Your task to perform on an android device: What's on my calendar tomorrow? Image 0: 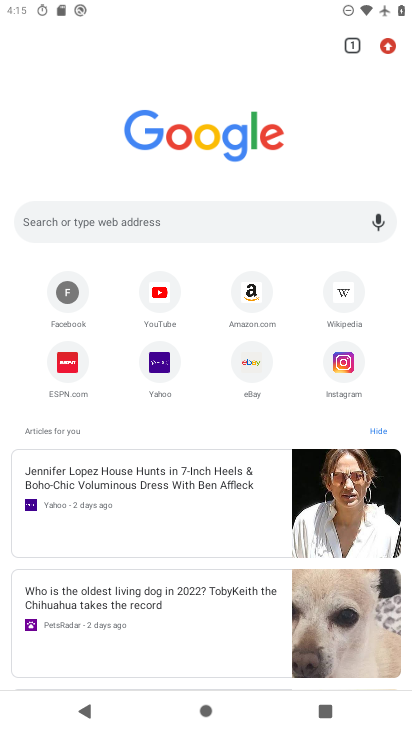
Step 0: press home button
Your task to perform on an android device: What's on my calendar tomorrow? Image 1: 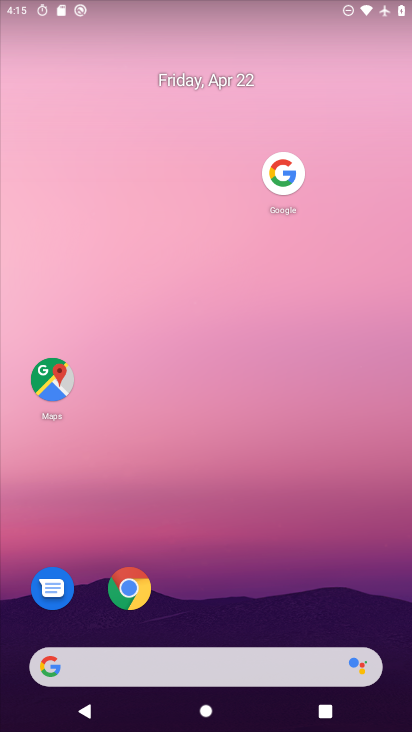
Step 1: drag from (215, 644) to (186, 45)
Your task to perform on an android device: What's on my calendar tomorrow? Image 2: 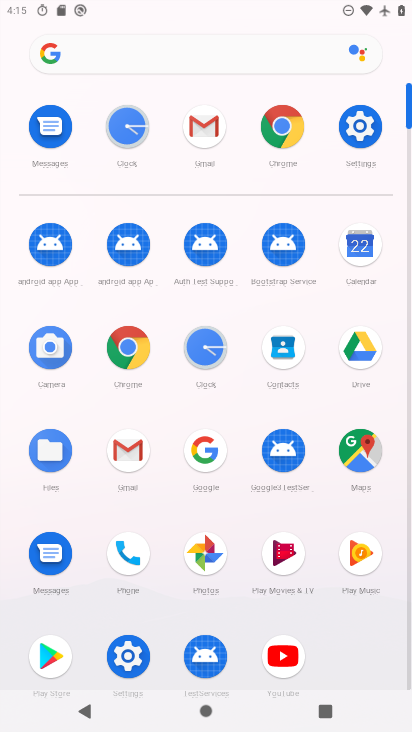
Step 2: click (349, 254)
Your task to perform on an android device: What's on my calendar tomorrow? Image 3: 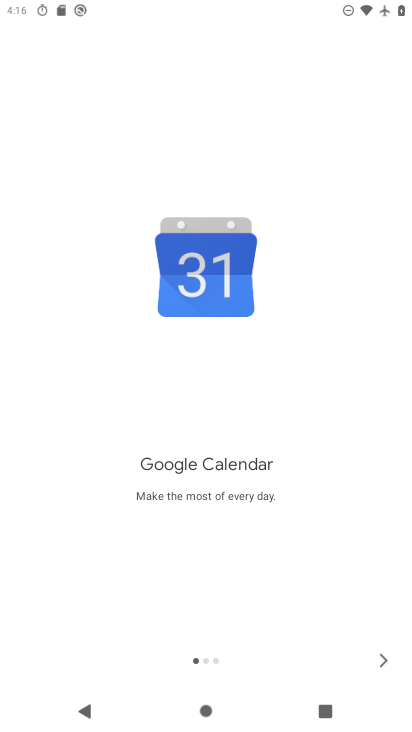
Step 3: click (383, 646)
Your task to perform on an android device: What's on my calendar tomorrow? Image 4: 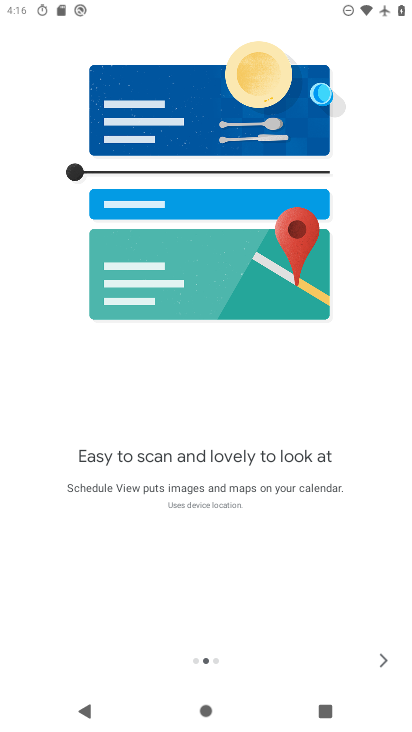
Step 4: click (374, 657)
Your task to perform on an android device: What's on my calendar tomorrow? Image 5: 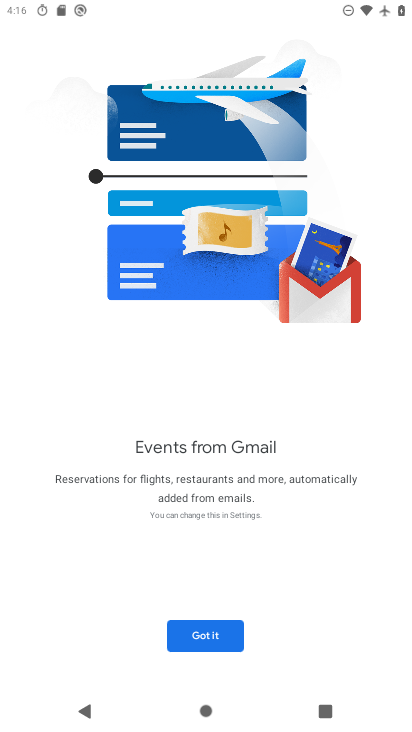
Step 5: click (217, 637)
Your task to perform on an android device: What's on my calendar tomorrow? Image 6: 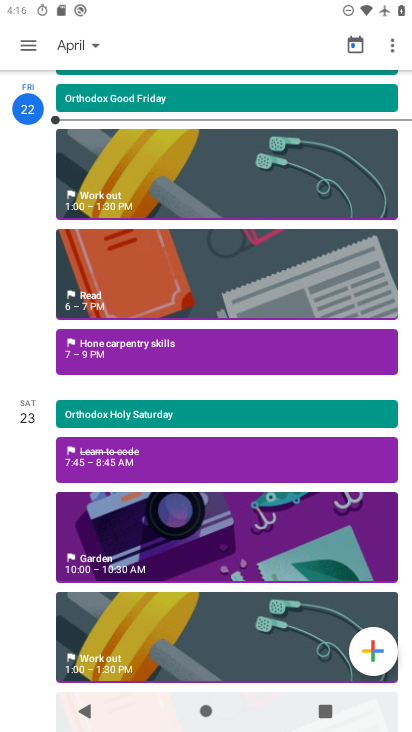
Step 6: press home button
Your task to perform on an android device: What's on my calendar tomorrow? Image 7: 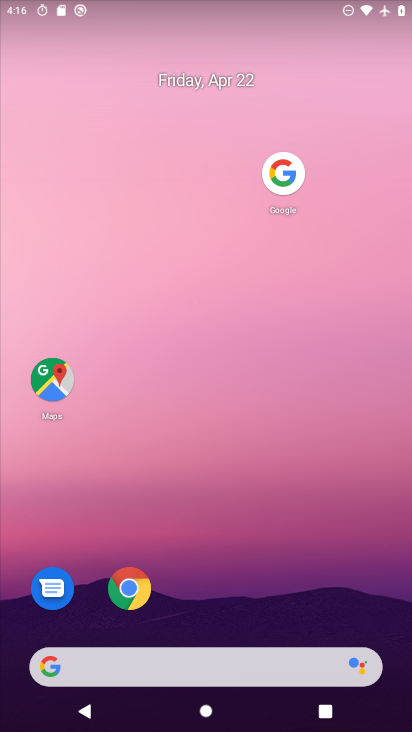
Step 7: drag from (200, 636) to (187, 13)
Your task to perform on an android device: What's on my calendar tomorrow? Image 8: 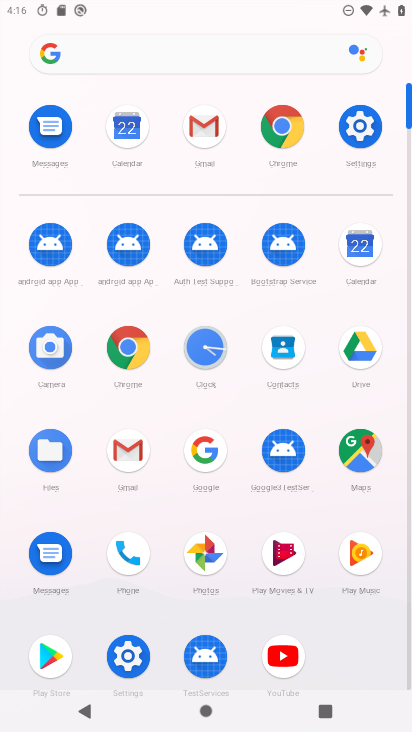
Step 8: click (358, 236)
Your task to perform on an android device: What's on my calendar tomorrow? Image 9: 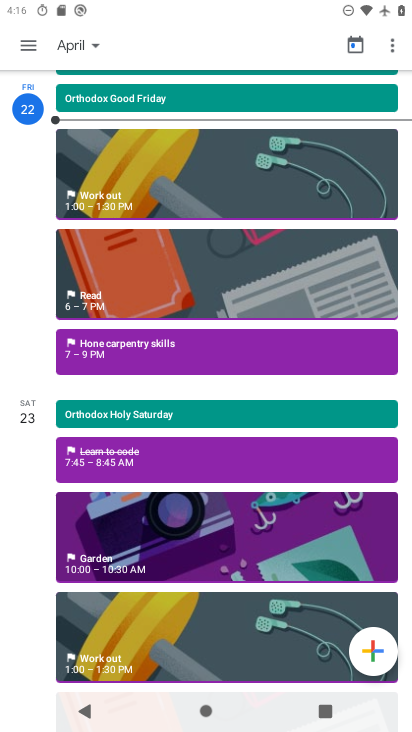
Step 9: click (35, 421)
Your task to perform on an android device: What's on my calendar tomorrow? Image 10: 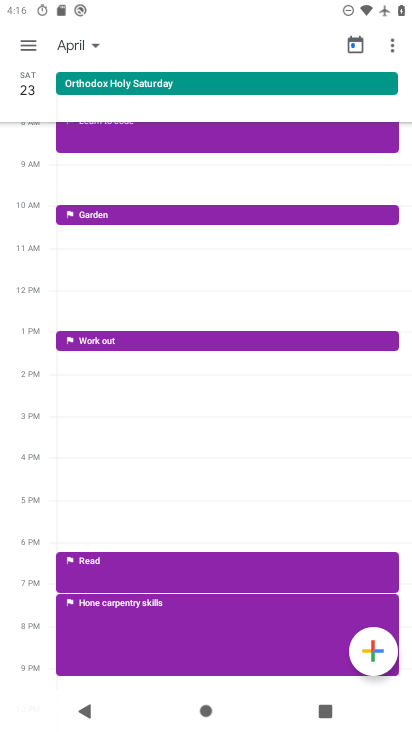
Step 10: task complete